Your task to perform on an android device: create a new album in the google photos Image 0: 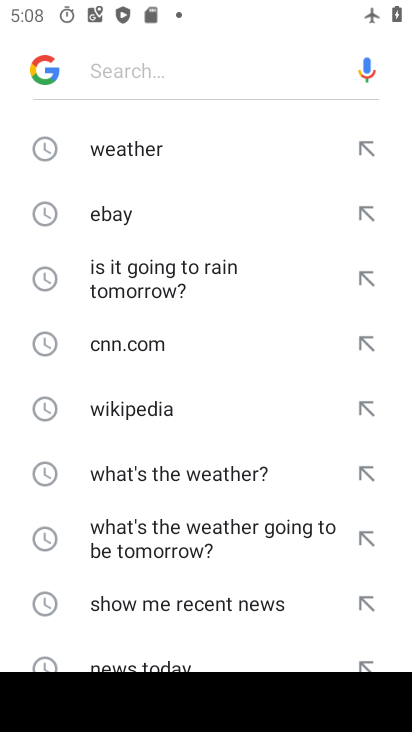
Step 0: press back button
Your task to perform on an android device: create a new album in the google photos Image 1: 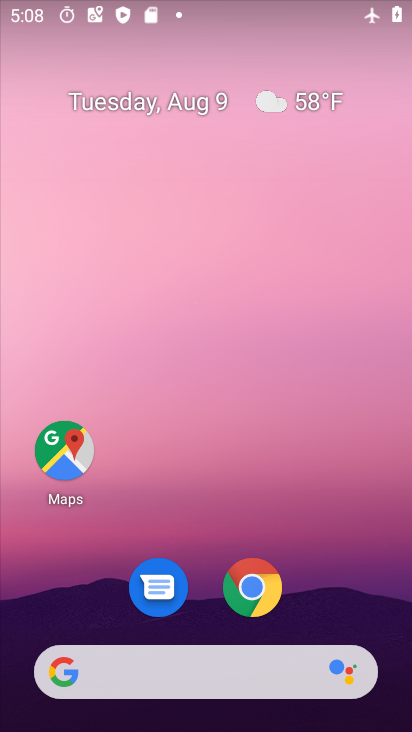
Step 1: drag from (186, 659) to (158, 175)
Your task to perform on an android device: create a new album in the google photos Image 2: 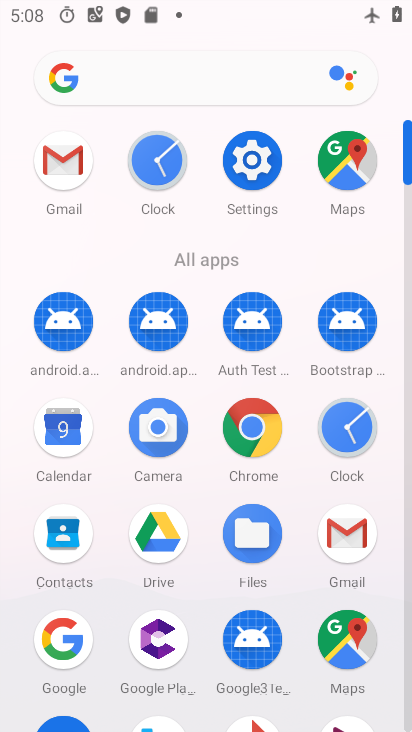
Step 2: drag from (196, 599) to (112, 232)
Your task to perform on an android device: create a new album in the google photos Image 3: 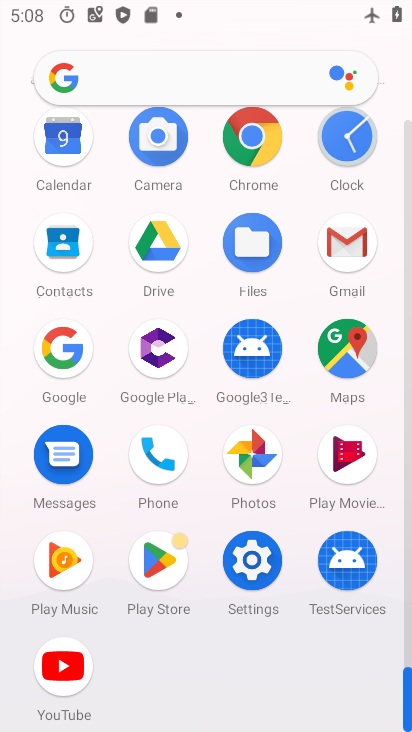
Step 3: click (247, 476)
Your task to perform on an android device: create a new album in the google photos Image 4: 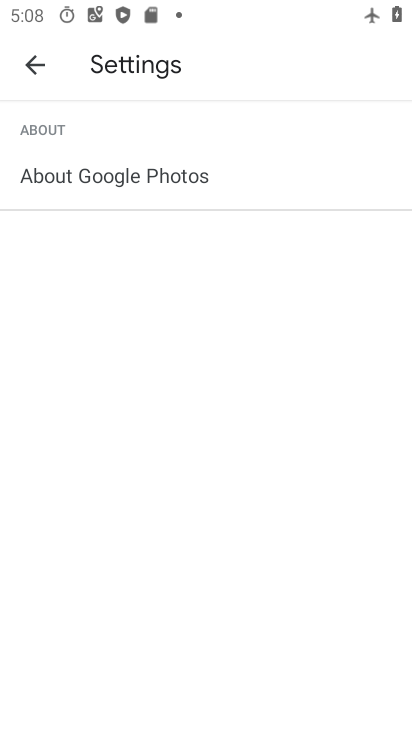
Step 4: click (40, 60)
Your task to perform on an android device: create a new album in the google photos Image 5: 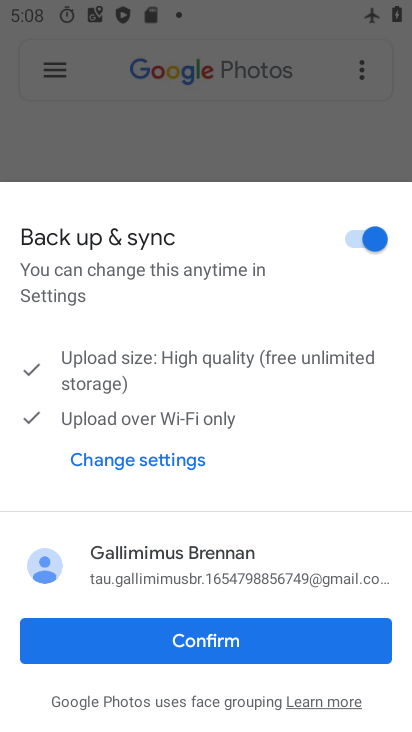
Step 5: click (215, 643)
Your task to perform on an android device: create a new album in the google photos Image 6: 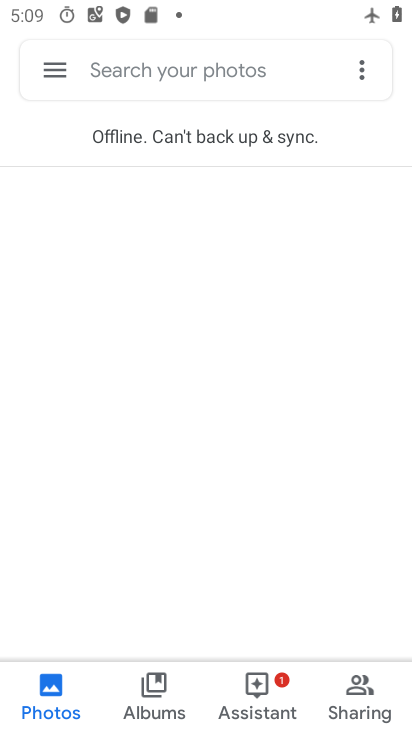
Step 6: click (268, 690)
Your task to perform on an android device: create a new album in the google photos Image 7: 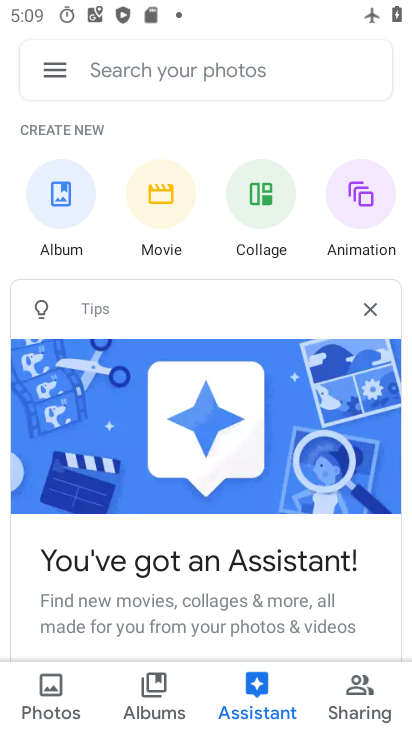
Step 7: click (70, 204)
Your task to perform on an android device: create a new album in the google photos Image 8: 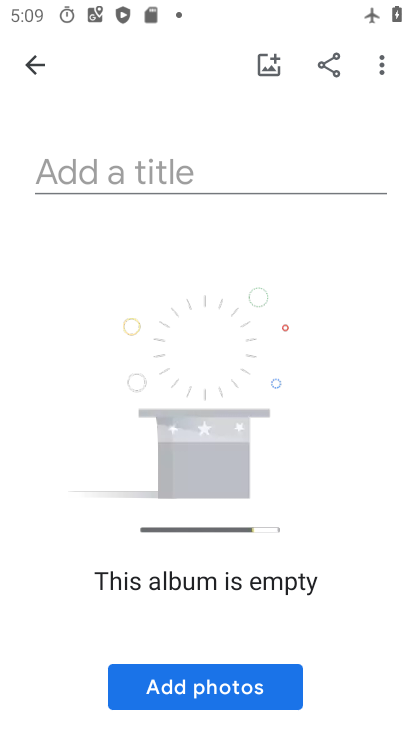
Step 8: click (156, 176)
Your task to perform on an android device: create a new album in the google photos Image 9: 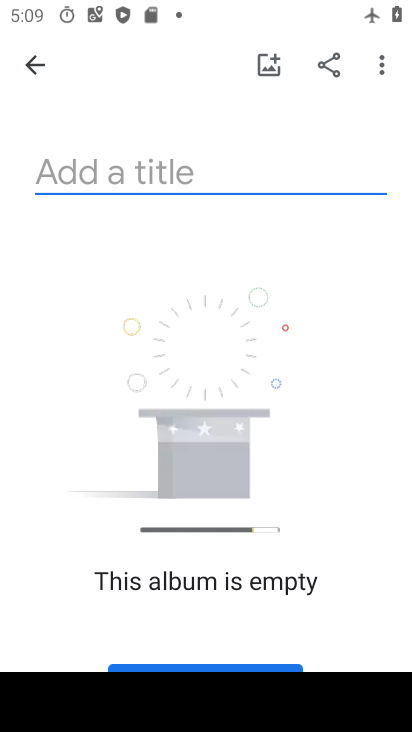
Step 9: type "dghgfh"
Your task to perform on an android device: create a new album in the google photos Image 10: 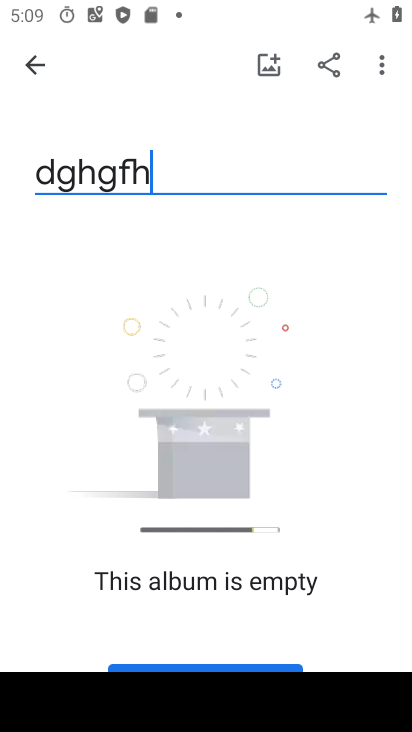
Step 10: drag from (277, 635) to (269, 388)
Your task to perform on an android device: create a new album in the google photos Image 11: 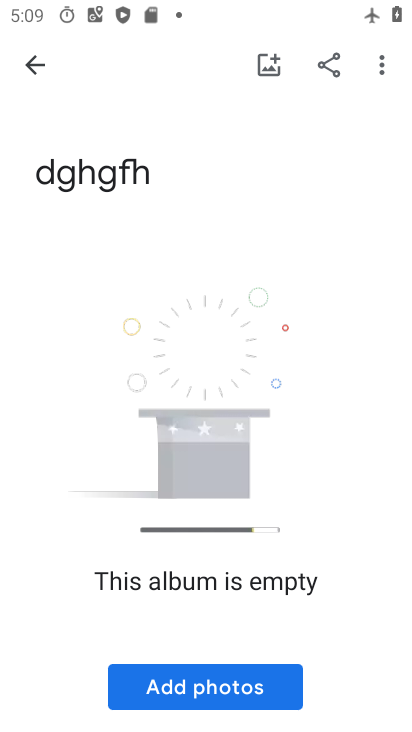
Step 11: click (236, 674)
Your task to perform on an android device: create a new album in the google photos Image 12: 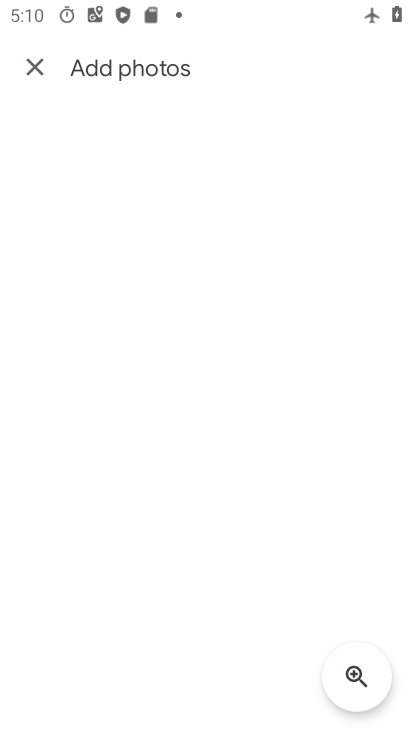
Step 12: task complete